Your task to perform on an android device: set the stopwatch Image 0: 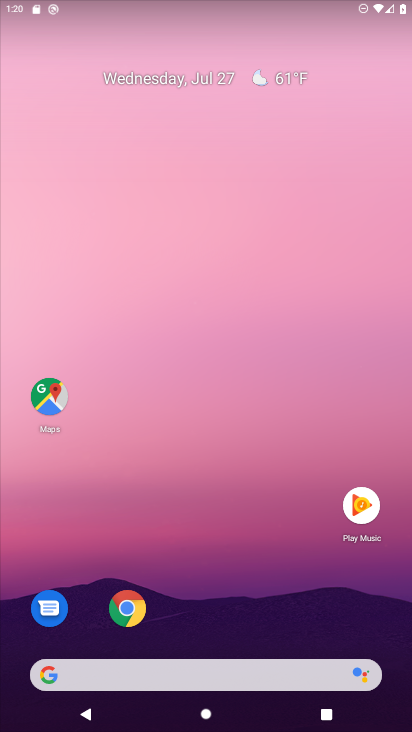
Step 0: press home button
Your task to perform on an android device: set the stopwatch Image 1: 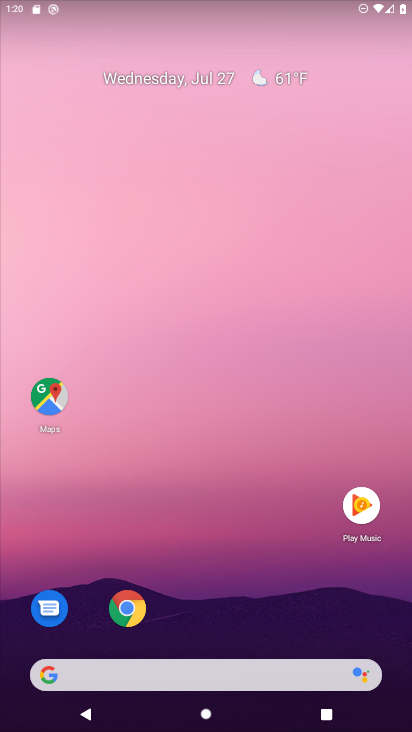
Step 1: drag from (301, 642) to (339, 286)
Your task to perform on an android device: set the stopwatch Image 2: 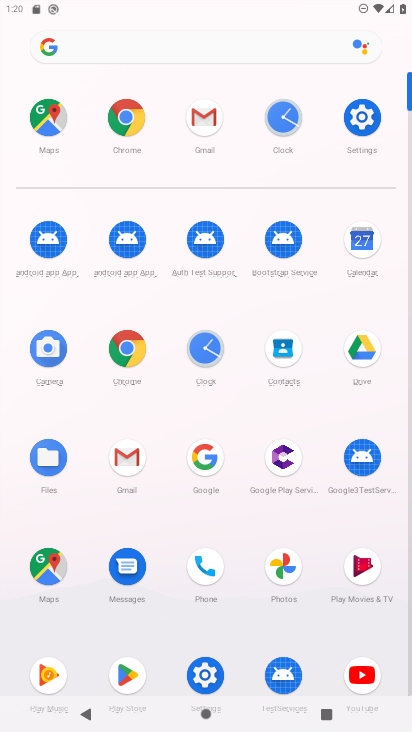
Step 2: click (200, 350)
Your task to perform on an android device: set the stopwatch Image 3: 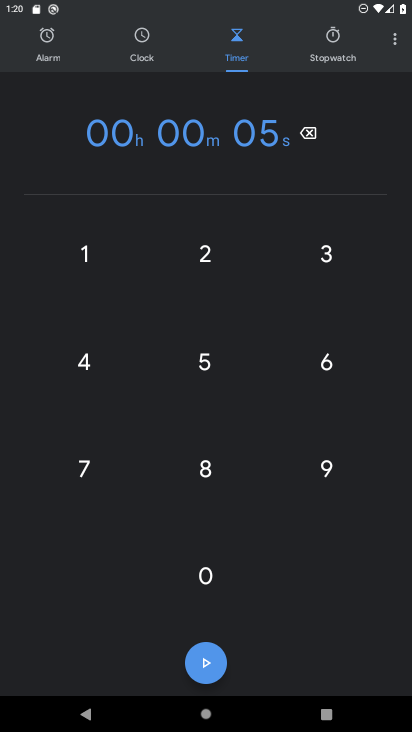
Step 3: click (332, 48)
Your task to perform on an android device: set the stopwatch Image 4: 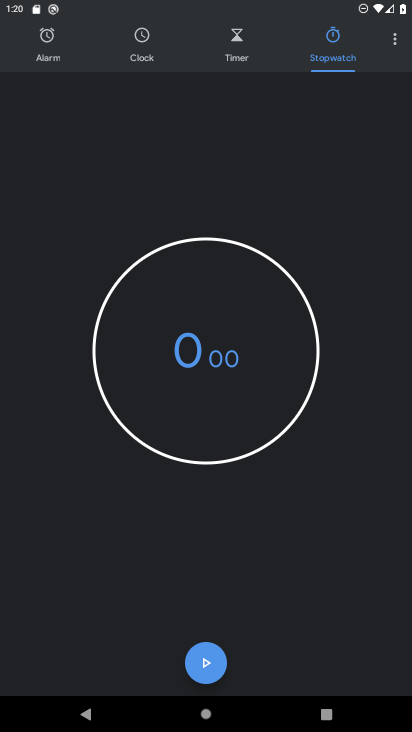
Step 4: click (208, 665)
Your task to perform on an android device: set the stopwatch Image 5: 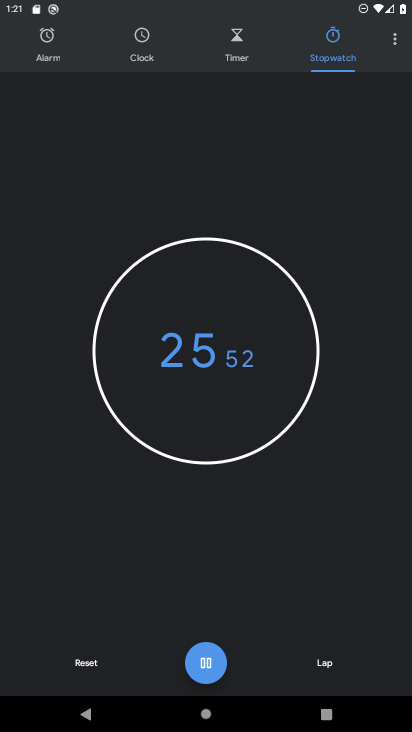
Step 5: task complete